Your task to perform on an android device: turn on data saver in the chrome app Image 0: 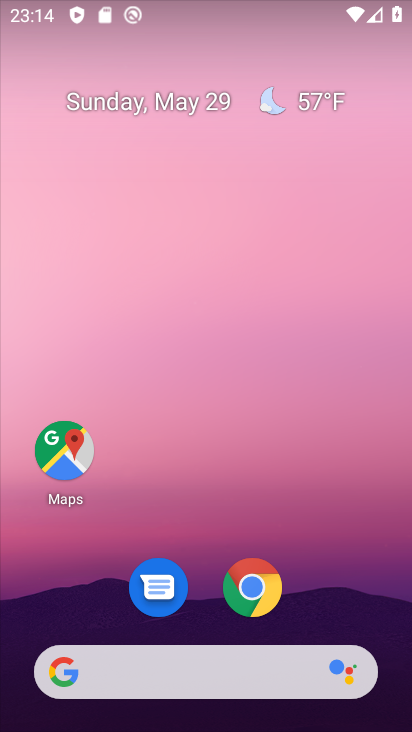
Step 0: click (247, 597)
Your task to perform on an android device: turn on data saver in the chrome app Image 1: 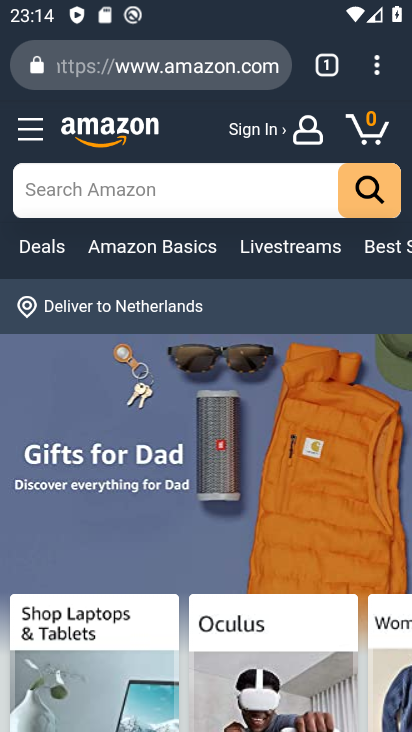
Step 1: click (384, 69)
Your task to perform on an android device: turn on data saver in the chrome app Image 2: 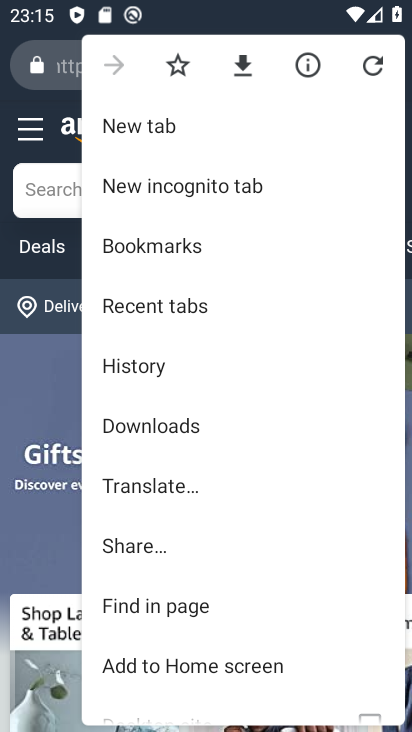
Step 2: drag from (226, 600) to (200, 268)
Your task to perform on an android device: turn on data saver in the chrome app Image 3: 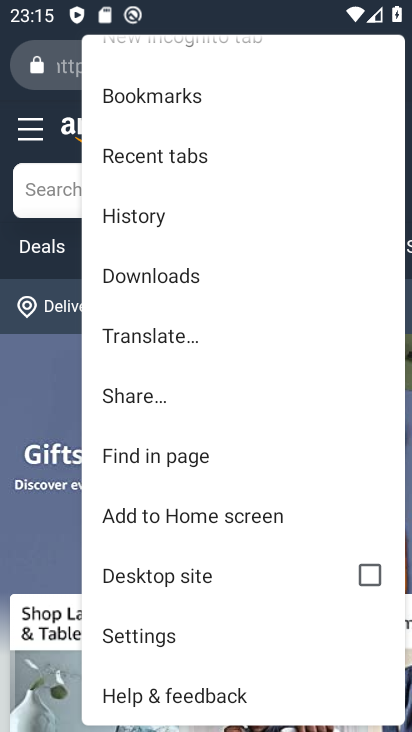
Step 3: click (158, 624)
Your task to perform on an android device: turn on data saver in the chrome app Image 4: 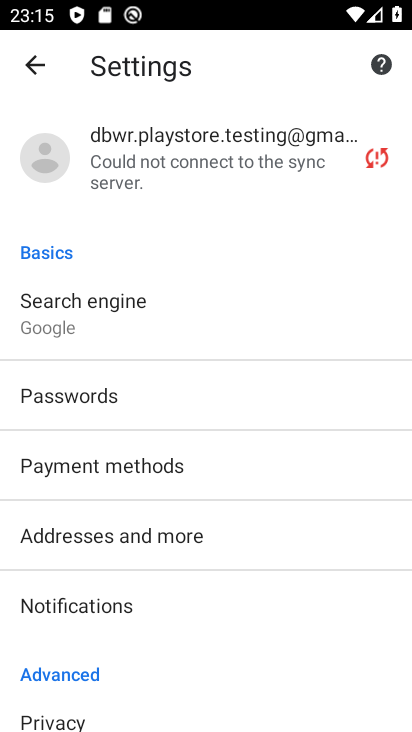
Step 4: drag from (212, 650) to (165, 256)
Your task to perform on an android device: turn on data saver in the chrome app Image 5: 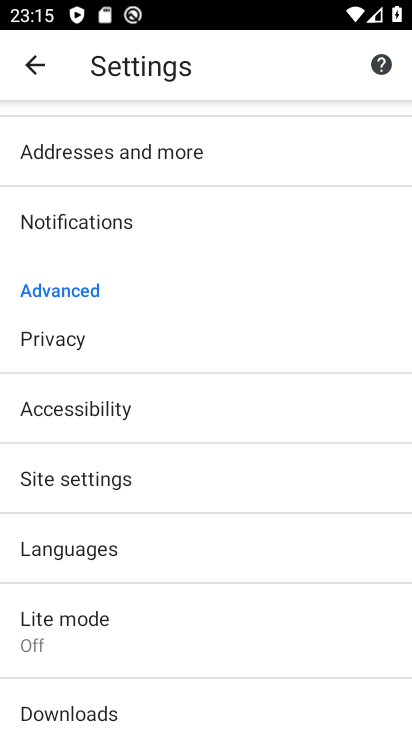
Step 5: click (243, 632)
Your task to perform on an android device: turn on data saver in the chrome app Image 6: 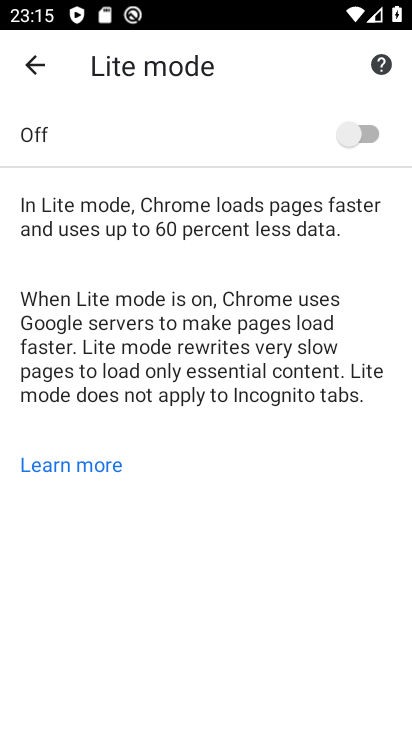
Step 6: click (372, 133)
Your task to perform on an android device: turn on data saver in the chrome app Image 7: 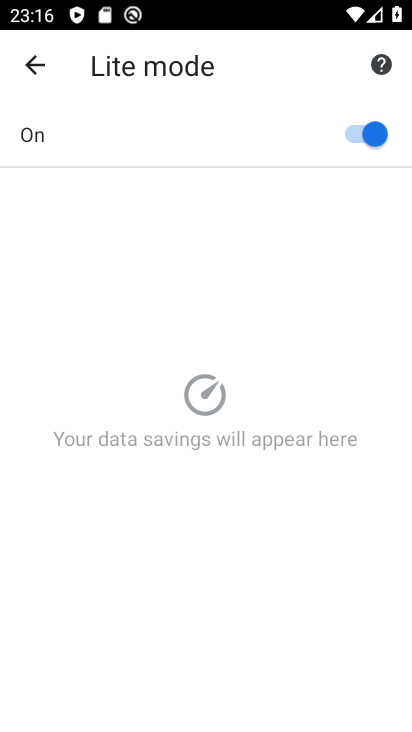
Step 7: task complete